Your task to perform on an android device: turn on improve location accuracy Image 0: 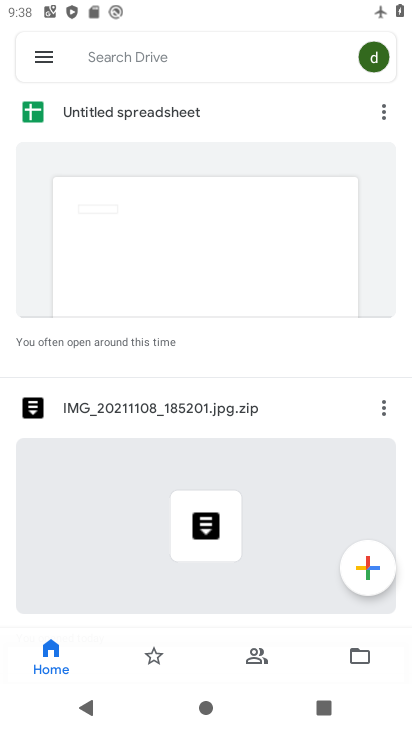
Step 0: press home button
Your task to perform on an android device: turn on improve location accuracy Image 1: 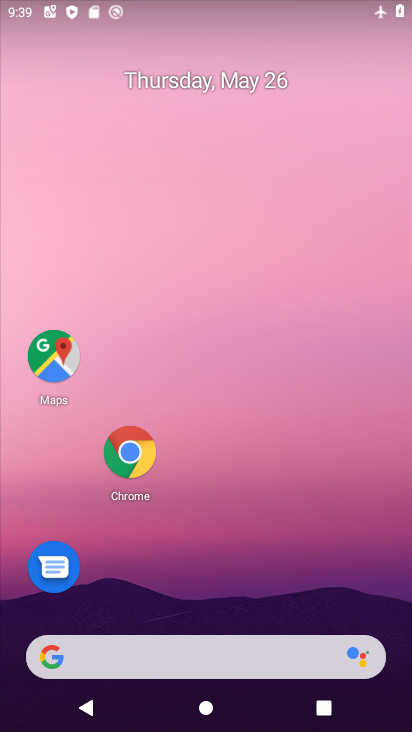
Step 1: drag from (167, 657) to (302, 91)
Your task to perform on an android device: turn on improve location accuracy Image 2: 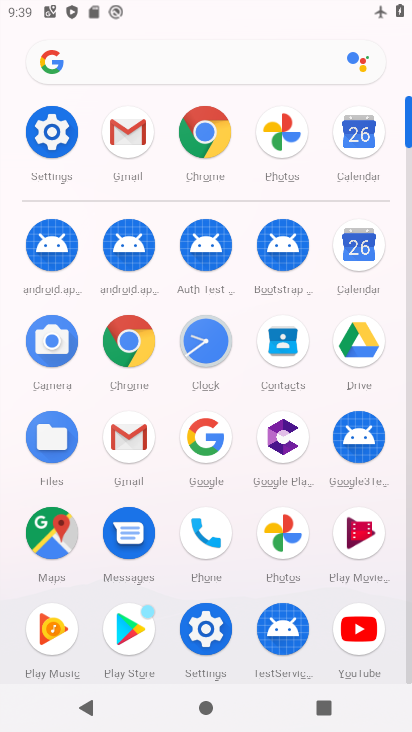
Step 2: click (53, 133)
Your task to perform on an android device: turn on improve location accuracy Image 3: 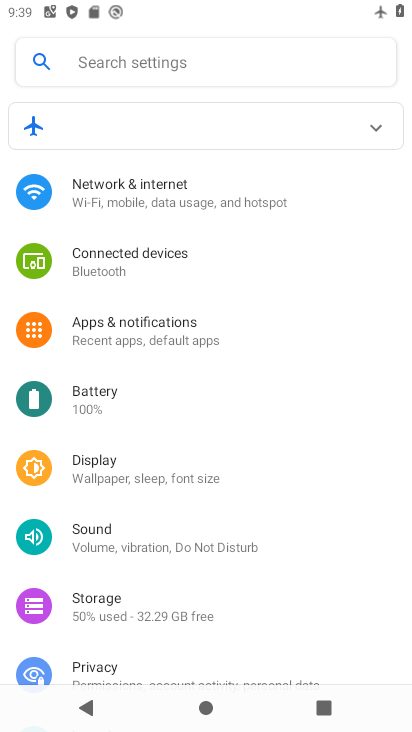
Step 3: drag from (226, 486) to (344, 244)
Your task to perform on an android device: turn on improve location accuracy Image 4: 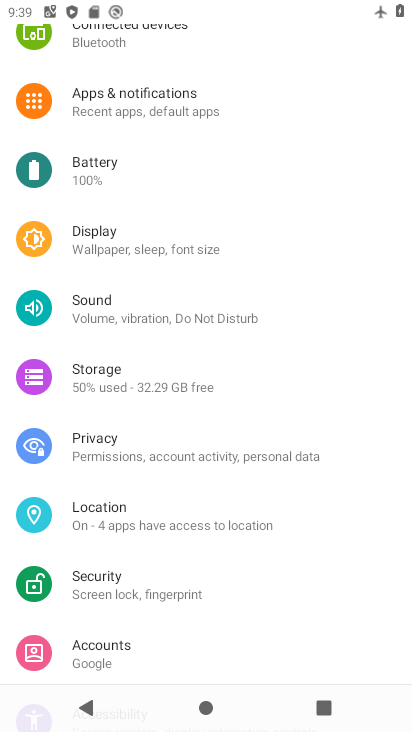
Step 4: click (137, 515)
Your task to perform on an android device: turn on improve location accuracy Image 5: 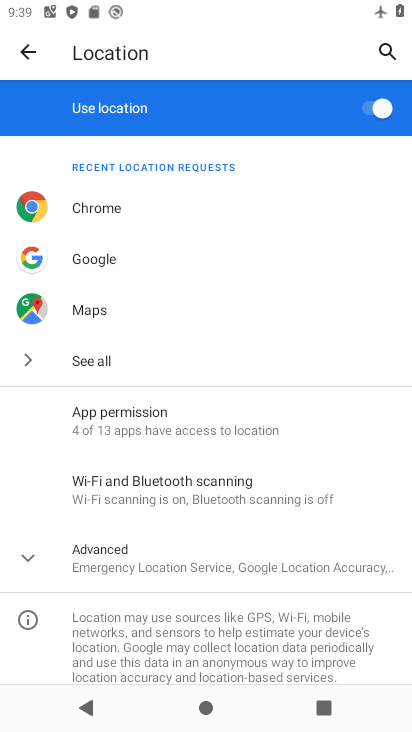
Step 5: click (122, 556)
Your task to perform on an android device: turn on improve location accuracy Image 6: 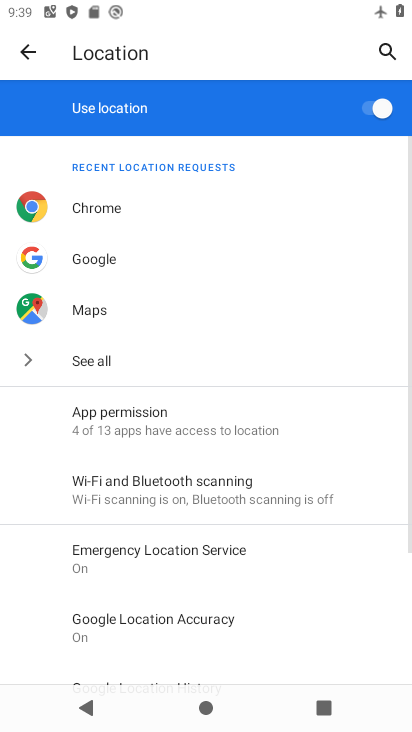
Step 6: drag from (250, 601) to (349, 280)
Your task to perform on an android device: turn on improve location accuracy Image 7: 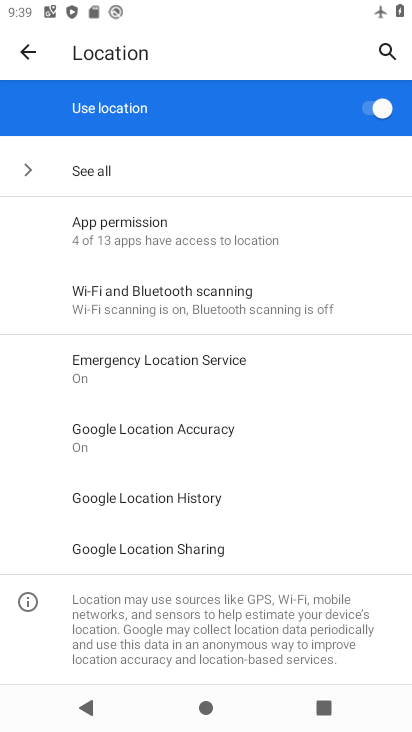
Step 7: click (152, 442)
Your task to perform on an android device: turn on improve location accuracy Image 8: 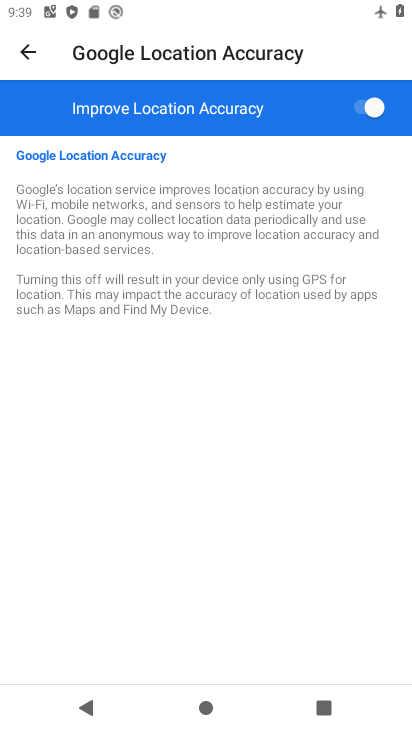
Step 8: task complete